Your task to perform on an android device: Open Chrome and go to settings Image 0: 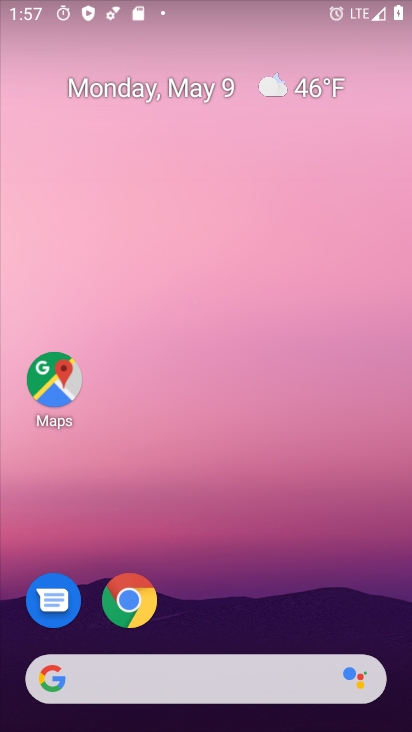
Step 0: click (126, 614)
Your task to perform on an android device: Open Chrome and go to settings Image 1: 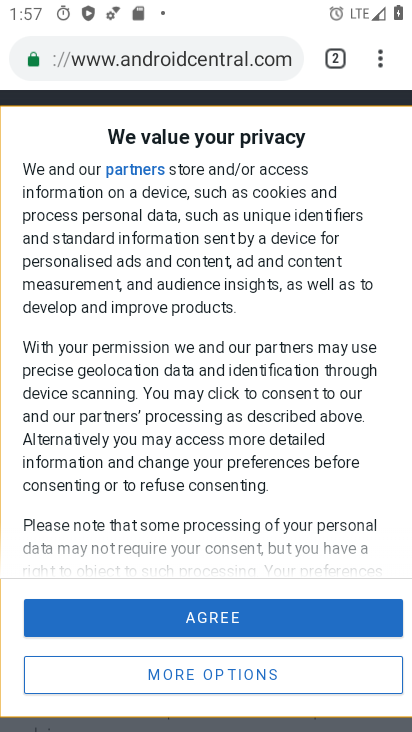
Step 1: drag from (387, 53) to (204, 628)
Your task to perform on an android device: Open Chrome and go to settings Image 2: 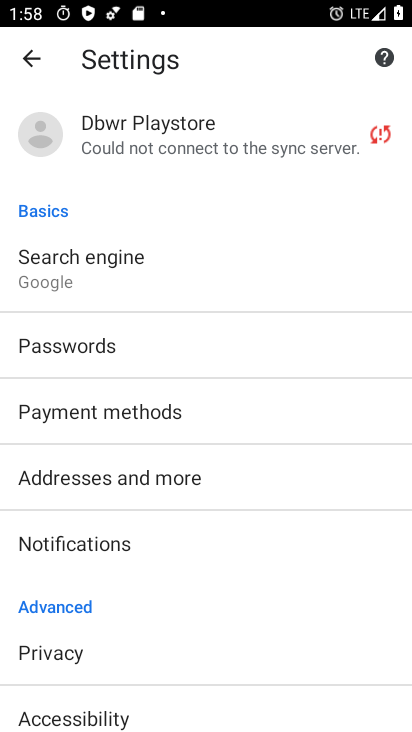
Step 2: click (128, 594)
Your task to perform on an android device: Open Chrome and go to settings Image 3: 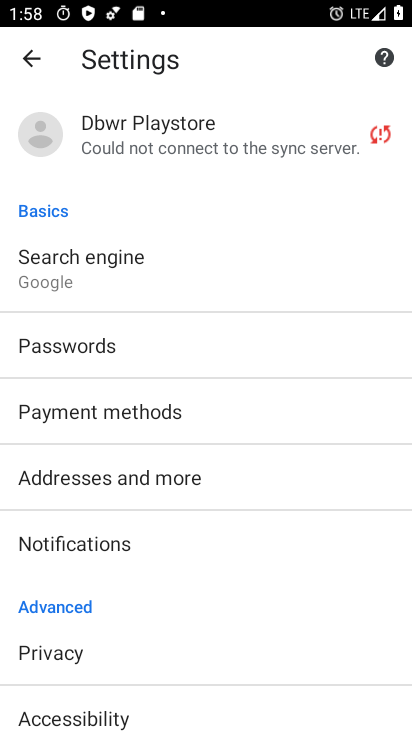
Step 3: task complete